Your task to perform on an android device: Go to Google Image 0: 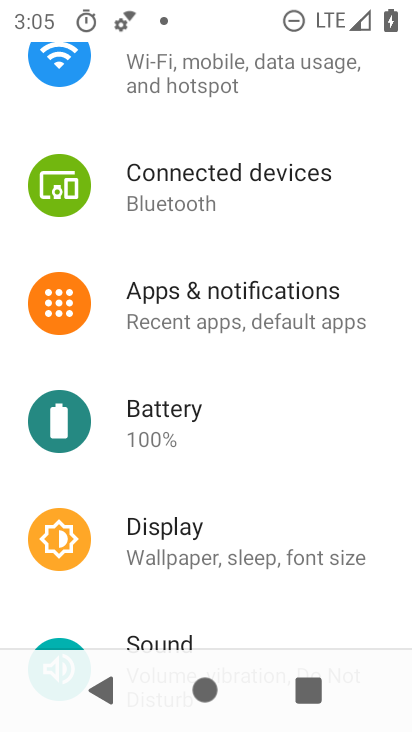
Step 0: press home button
Your task to perform on an android device: Go to Google Image 1: 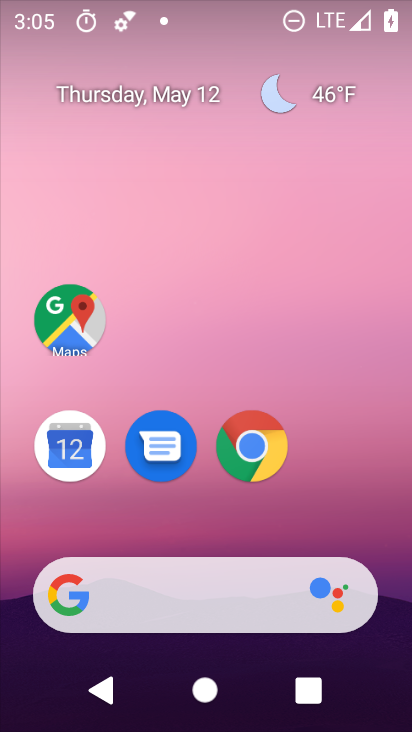
Step 1: drag from (208, 500) to (215, 191)
Your task to perform on an android device: Go to Google Image 2: 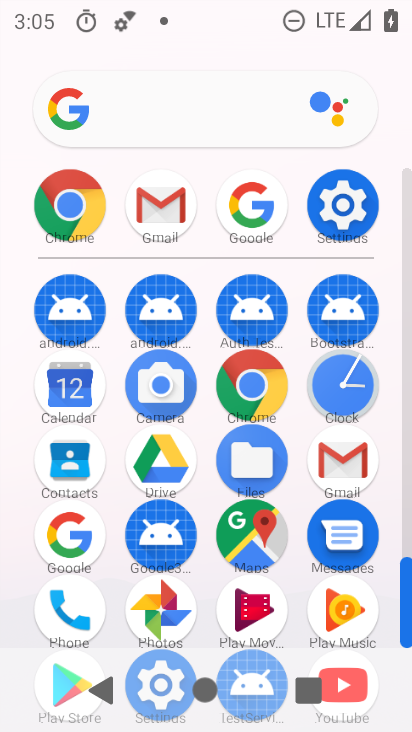
Step 2: click (259, 202)
Your task to perform on an android device: Go to Google Image 3: 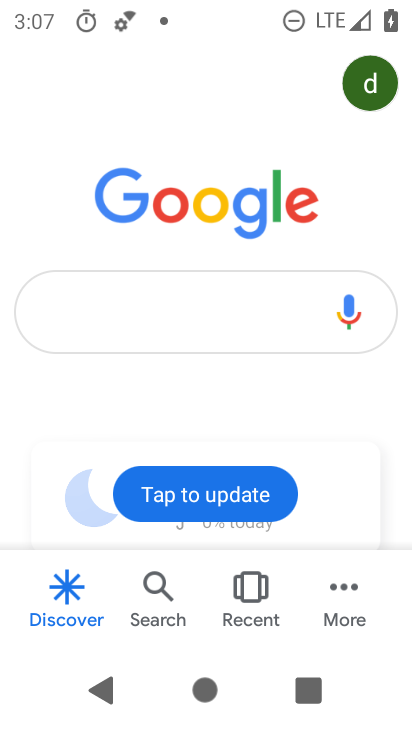
Step 3: task complete